Your task to perform on an android device: Show the shopping cart on newegg.com. Image 0: 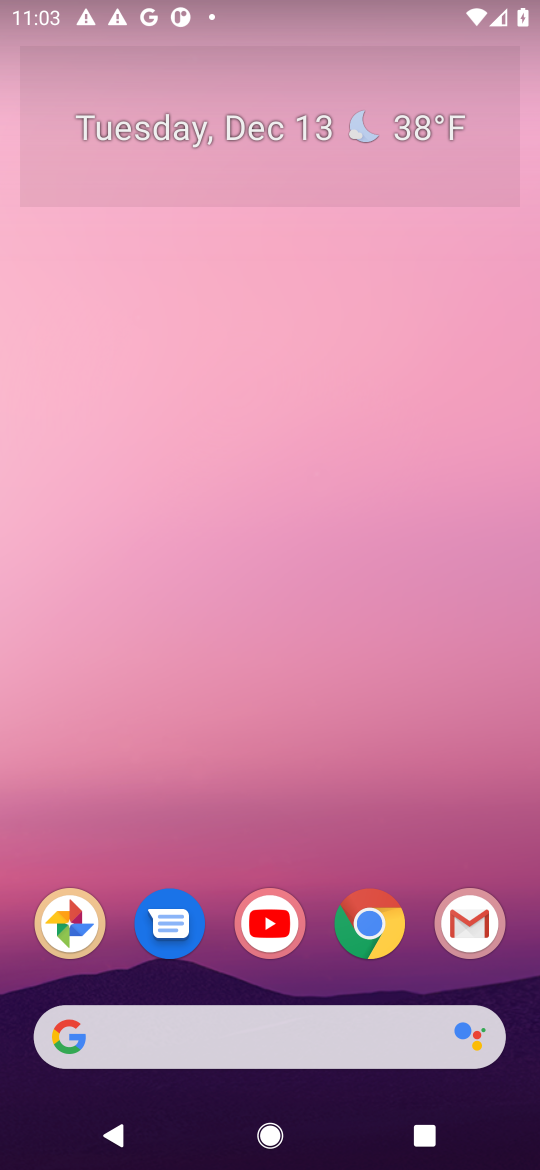
Step 0: click (367, 953)
Your task to perform on an android device: Show the shopping cart on newegg.com. Image 1: 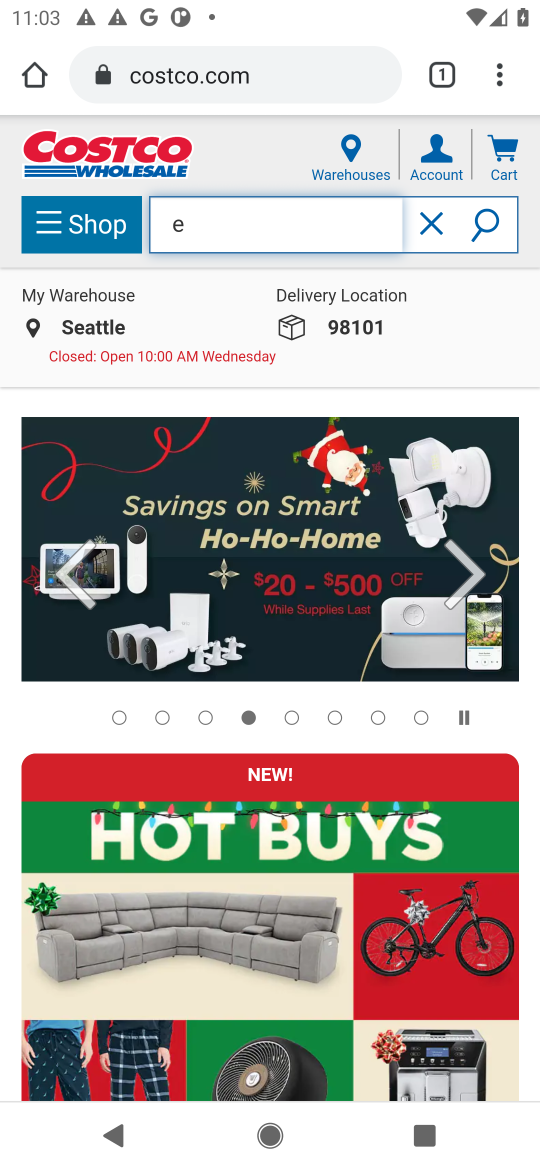
Step 1: click (302, 89)
Your task to perform on an android device: Show the shopping cart on newegg.com. Image 2: 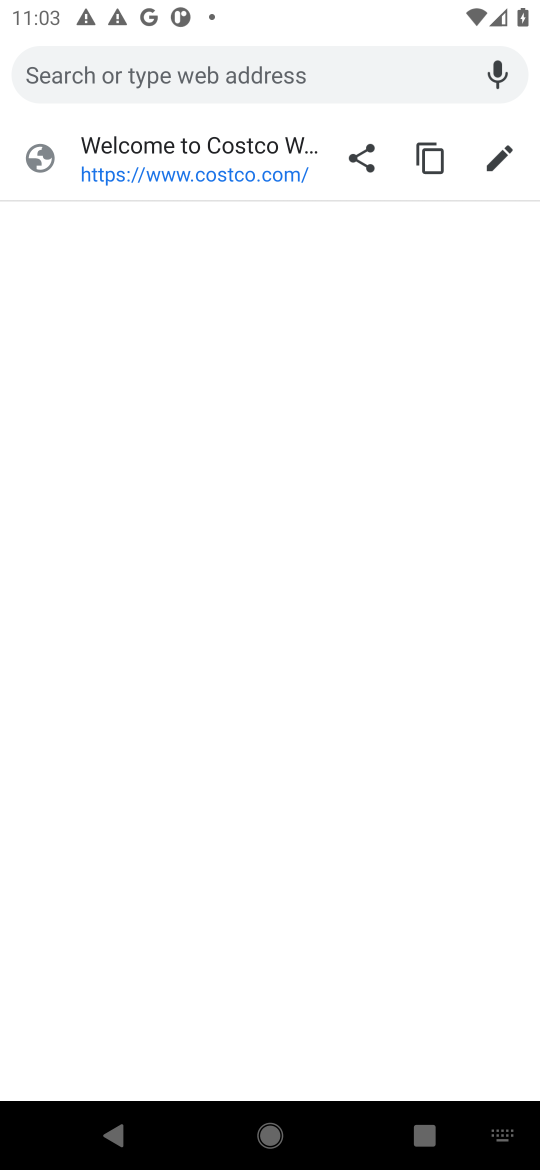
Step 2: type "newegg.com"
Your task to perform on an android device: Show the shopping cart on newegg.com. Image 3: 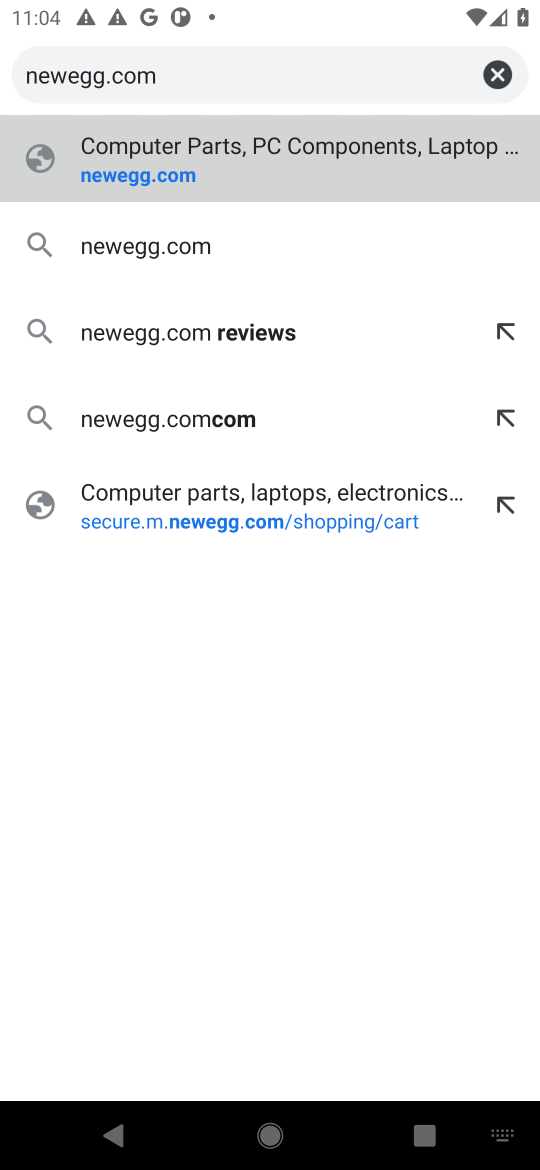
Step 3: click (98, 173)
Your task to perform on an android device: Show the shopping cart on newegg.com. Image 4: 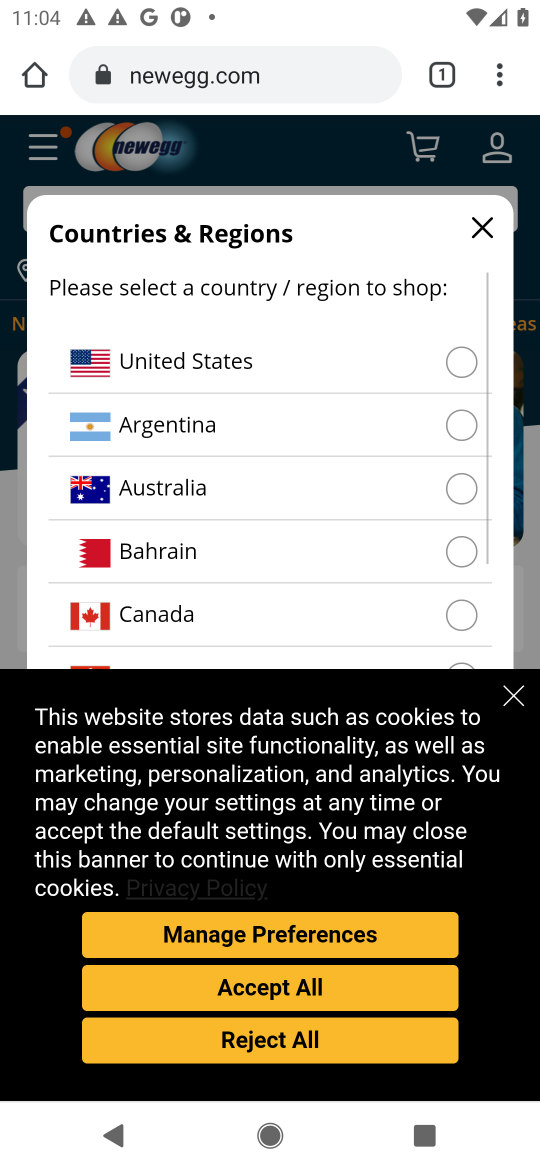
Step 4: click (207, 379)
Your task to perform on an android device: Show the shopping cart on newegg.com. Image 5: 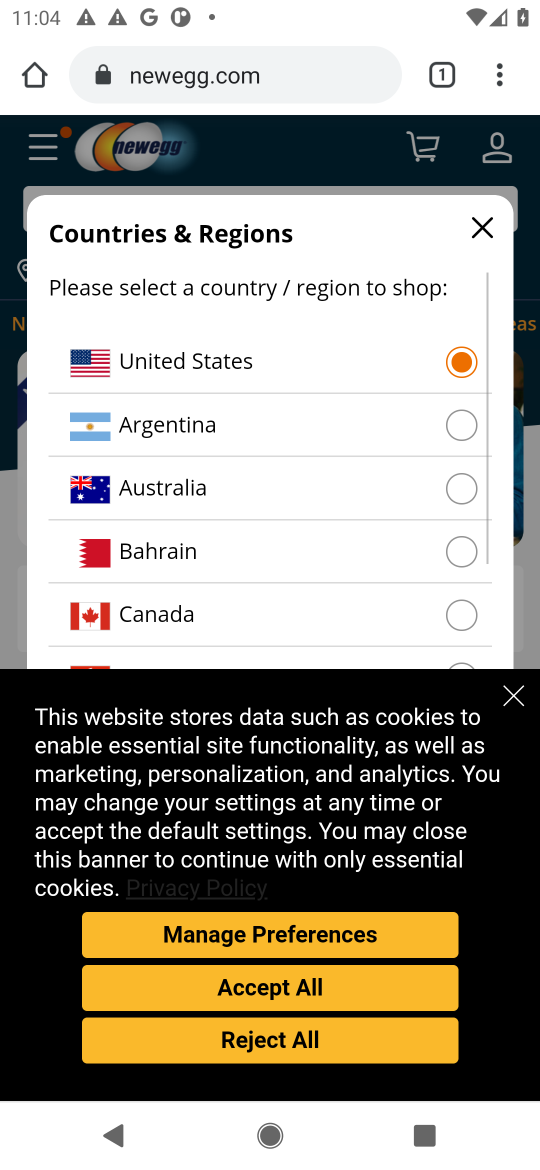
Step 5: click (391, 991)
Your task to perform on an android device: Show the shopping cart on newegg.com. Image 6: 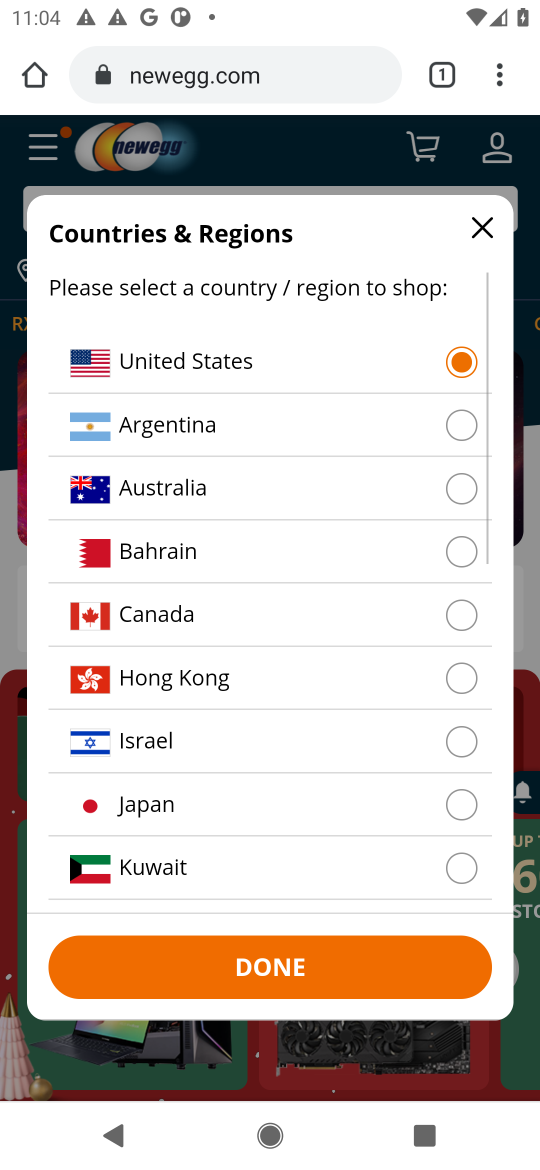
Step 6: click (345, 955)
Your task to perform on an android device: Show the shopping cart on newegg.com. Image 7: 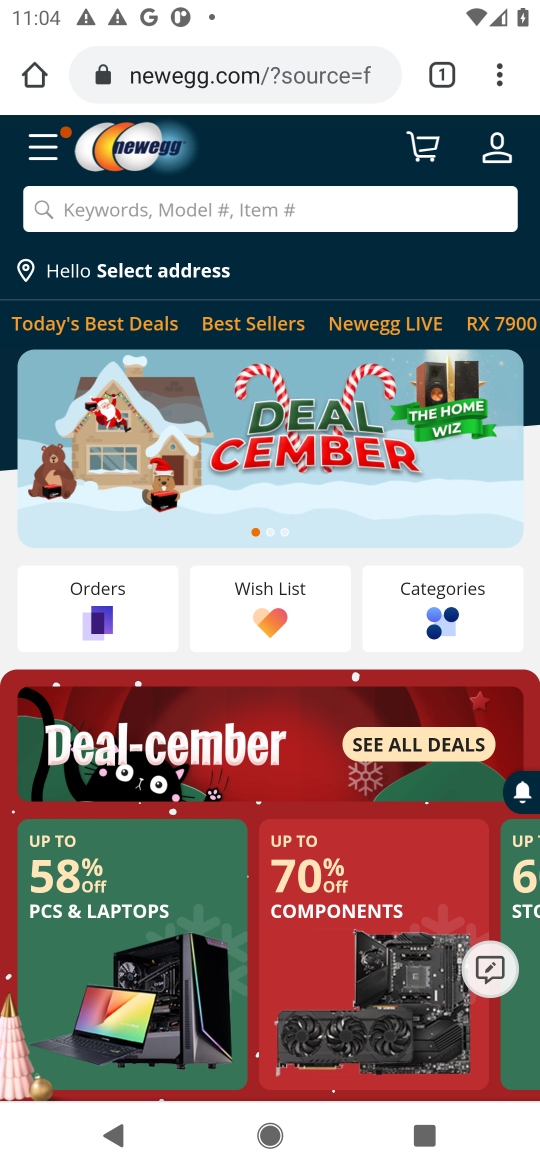
Step 7: click (196, 205)
Your task to perform on an android device: Show the shopping cart on newegg.com. Image 8: 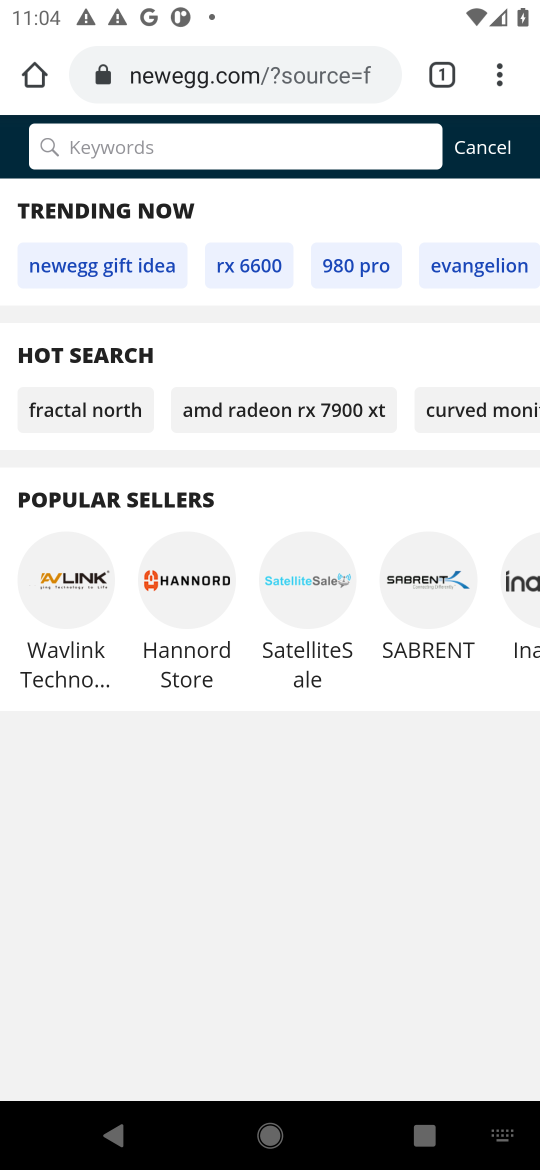
Step 8: click (464, 162)
Your task to perform on an android device: Show the shopping cart on newegg.com. Image 9: 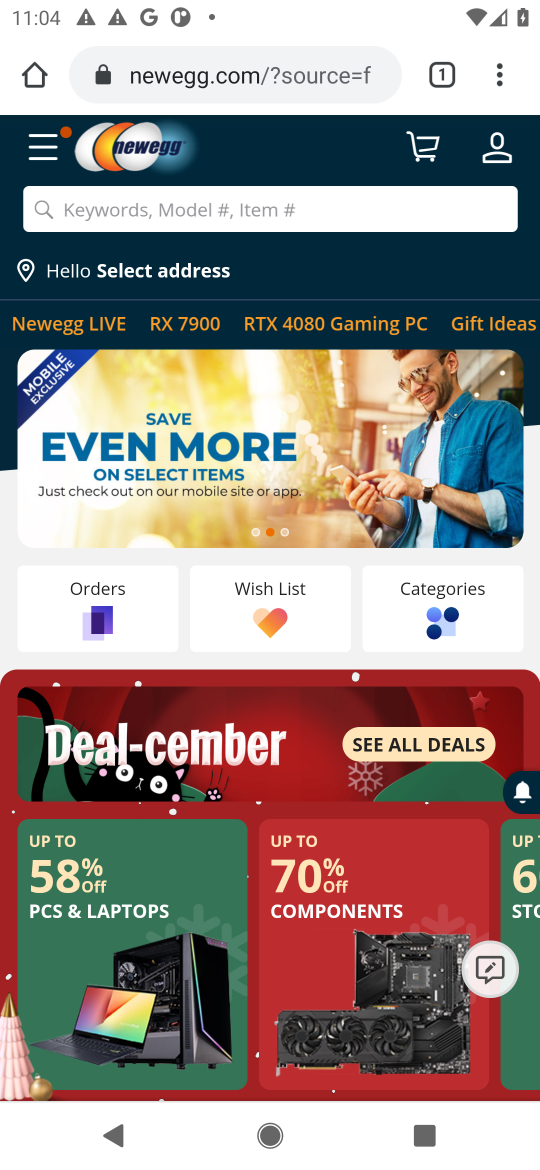
Step 9: click (429, 162)
Your task to perform on an android device: Show the shopping cart on newegg.com. Image 10: 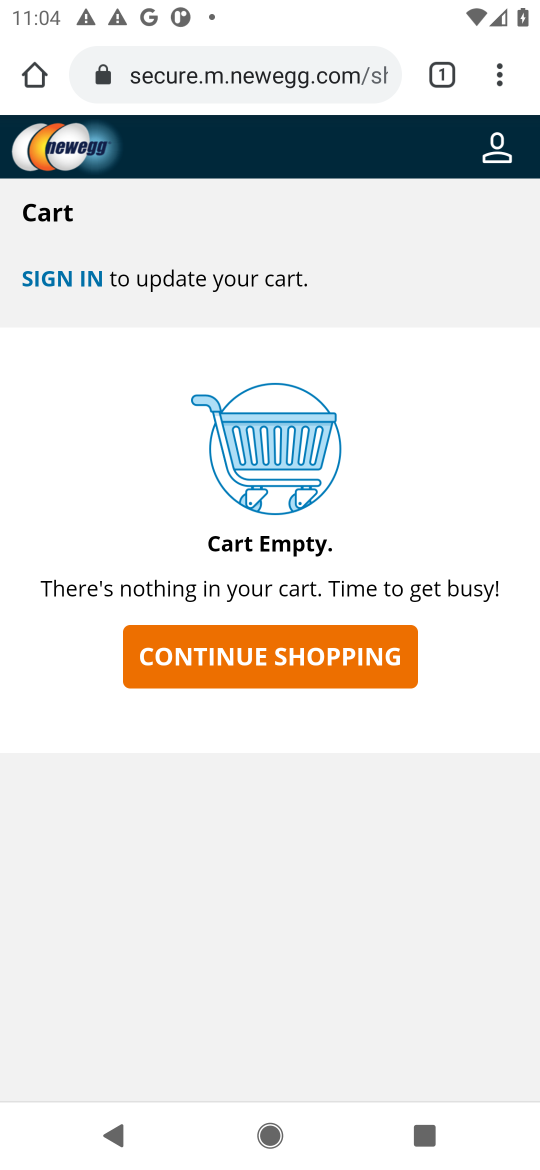
Step 10: task complete